Your task to perform on an android device: delete browsing data in the chrome app Image 0: 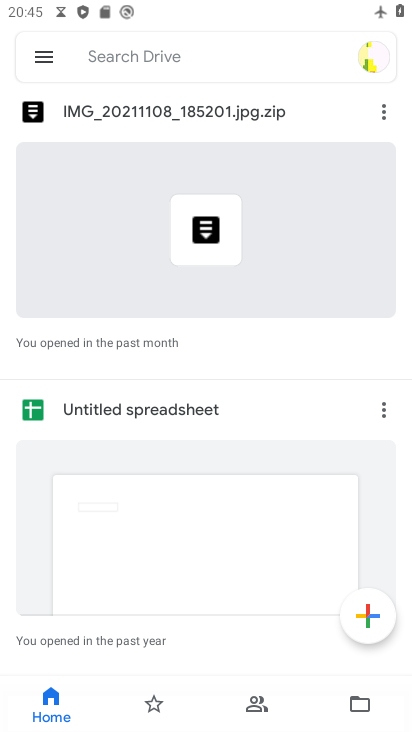
Step 0: press back button
Your task to perform on an android device: delete browsing data in the chrome app Image 1: 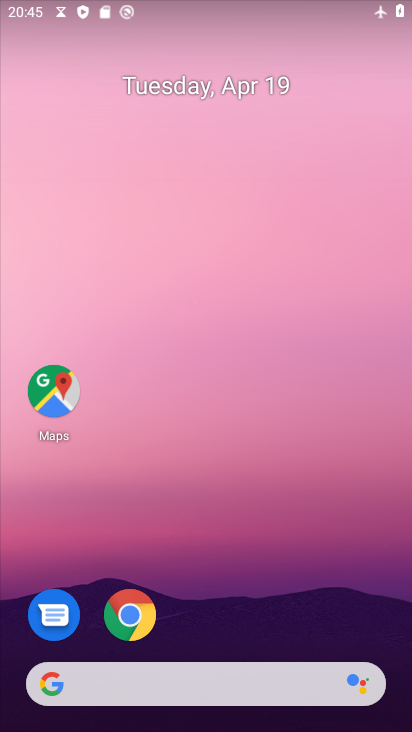
Step 1: drag from (252, 572) to (163, 10)
Your task to perform on an android device: delete browsing data in the chrome app Image 2: 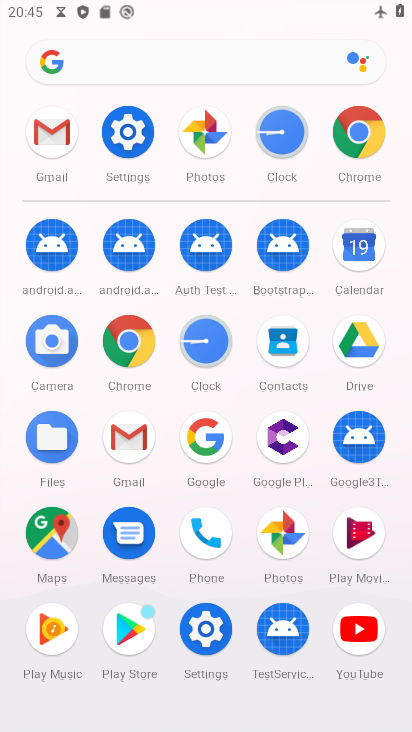
Step 2: click (132, 342)
Your task to perform on an android device: delete browsing data in the chrome app Image 3: 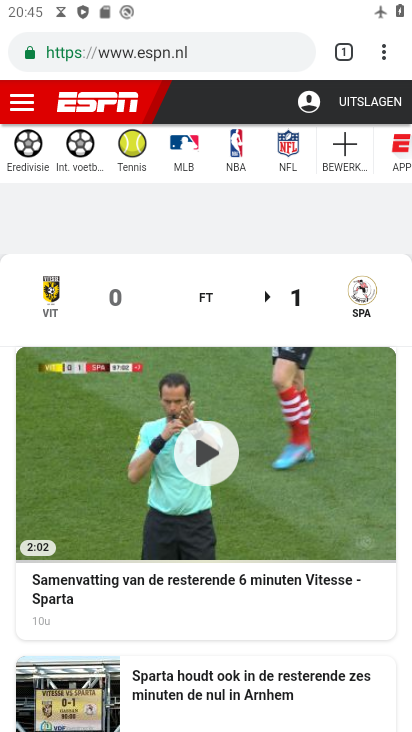
Step 3: task complete